Your task to perform on an android device: Go to Amazon Image 0: 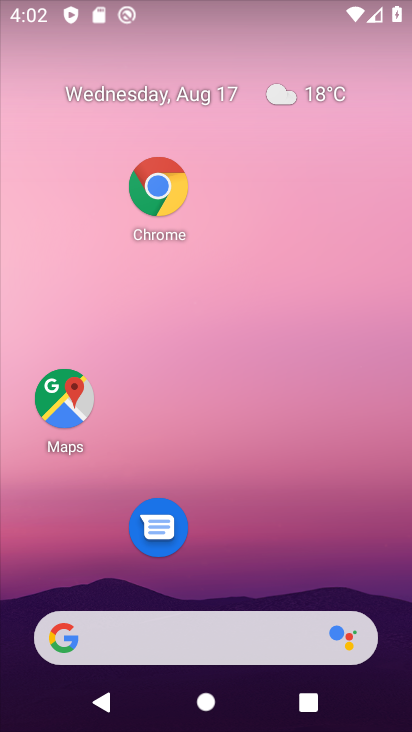
Step 0: click (155, 190)
Your task to perform on an android device: Go to Amazon Image 1: 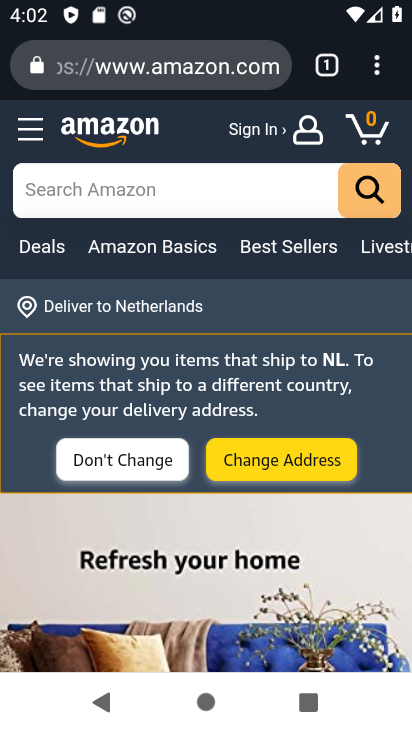
Step 1: task complete